Your task to perform on an android device: open app "Expedia: Hotels, Flights & Car" (install if not already installed) Image 0: 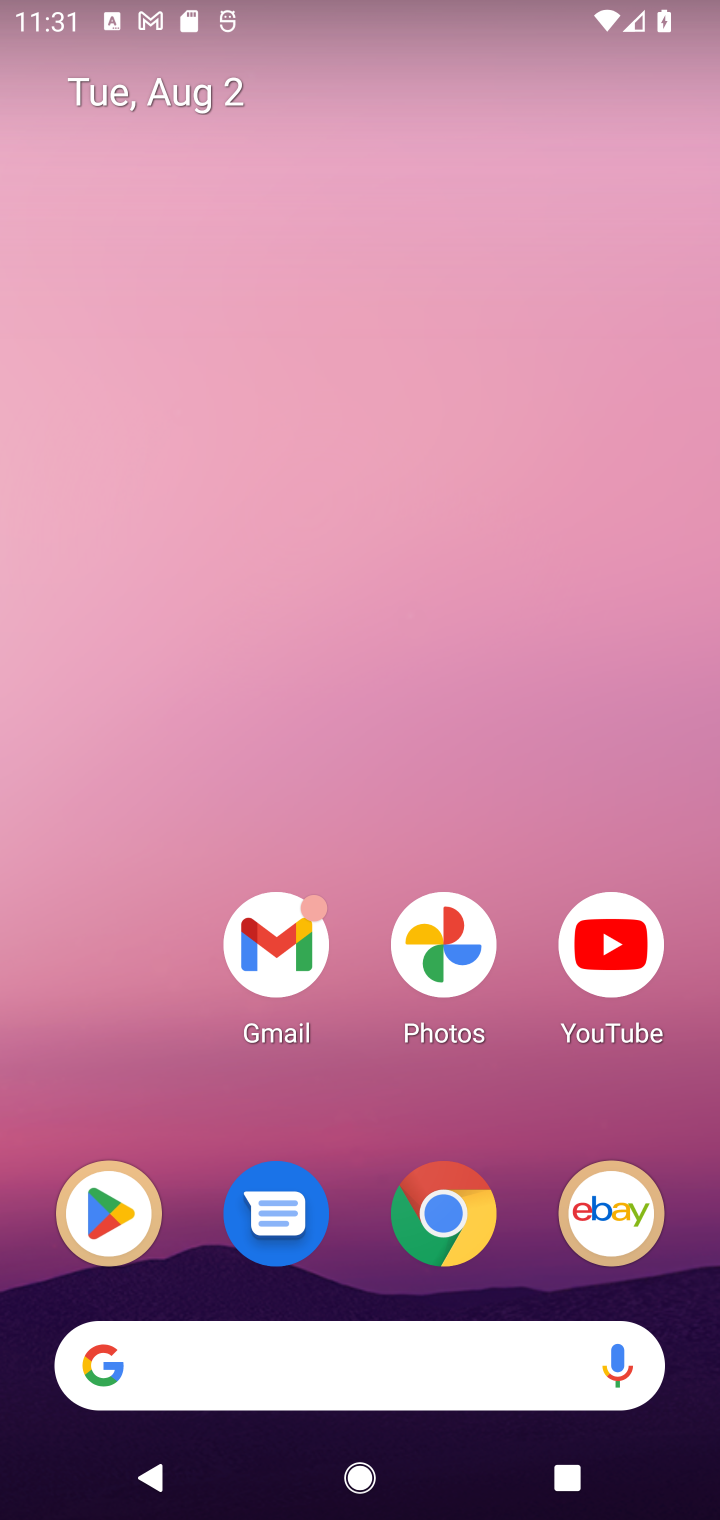
Step 0: click (93, 1235)
Your task to perform on an android device: open app "Expedia: Hotels, Flights & Car" (install if not already installed) Image 1: 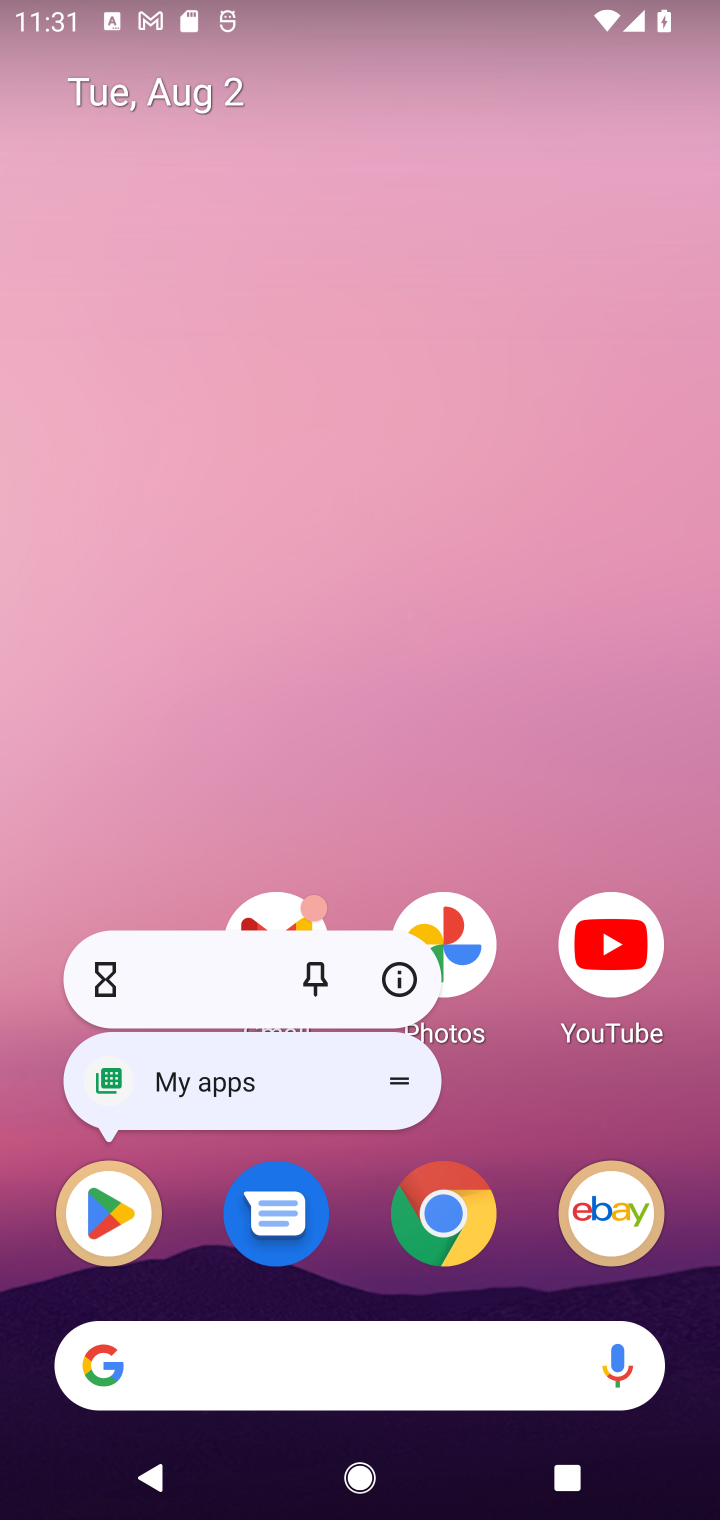
Step 1: click (95, 1246)
Your task to perform on an android device: open app "Expedia: Hotels, Flights & Car" (install if not already installed) Image 2: 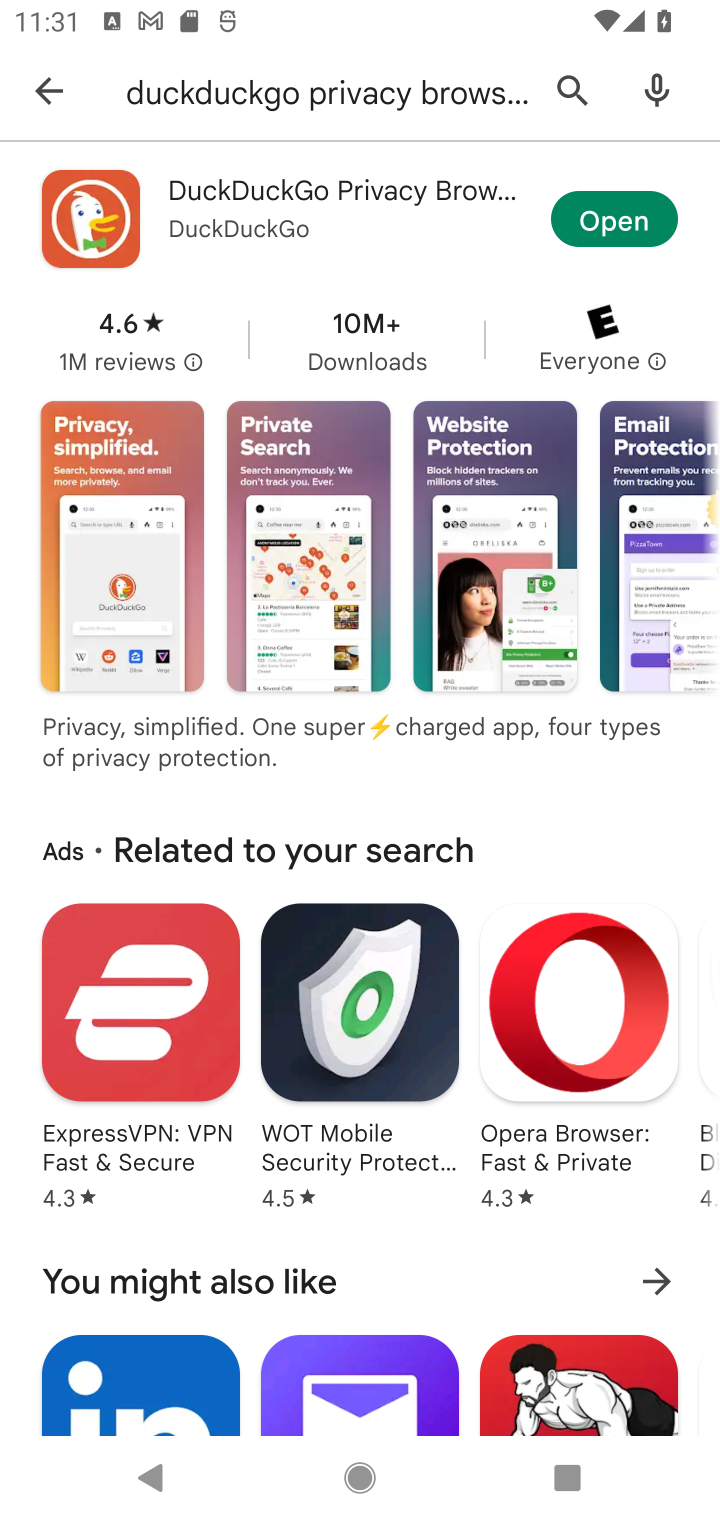
Step 2: click (49, 81)
Your task to perform on an android device: open app "Expedia: Hotels, Flights & Car" (install if not already installed) Image 3: 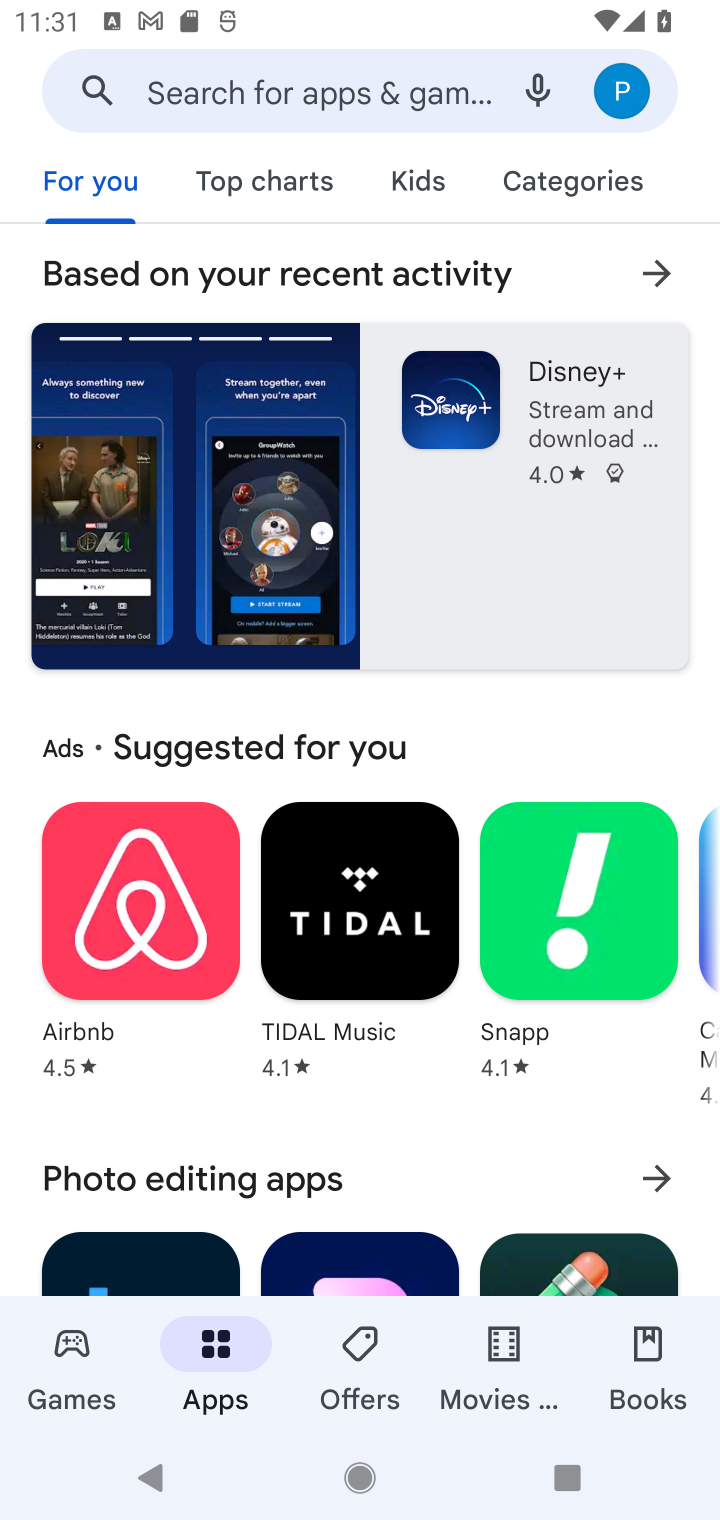
Step 3: click (301, 99)
Your task to perform on an android device: open app "Expedia: Hotels, Flights & Car" (install if not already installed) Image 4: 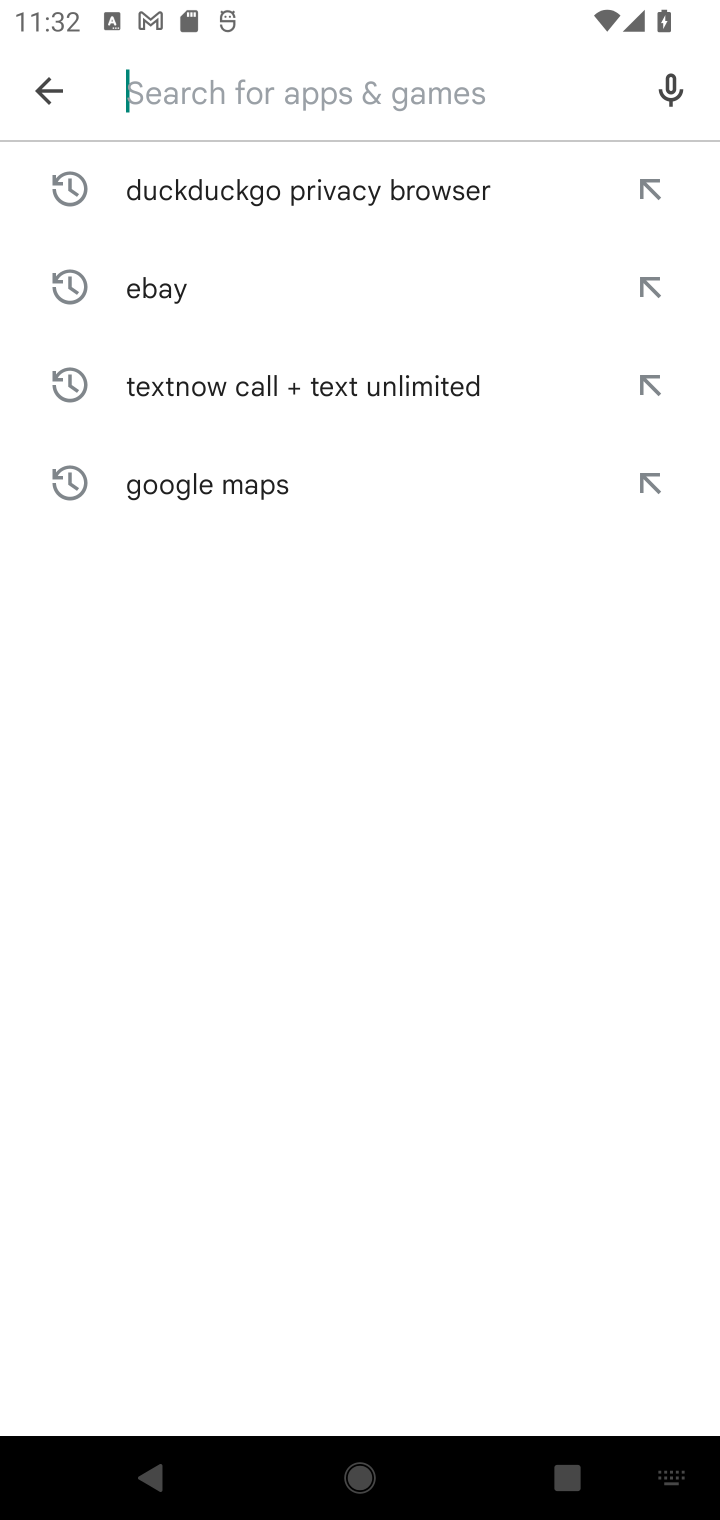
Step 4: type "Expedia: Hotels, Flights & Car"
Your task to perform on an android device: open app "Expedia: Hotels, Flights & Car" (install if not already installed) Image 5: 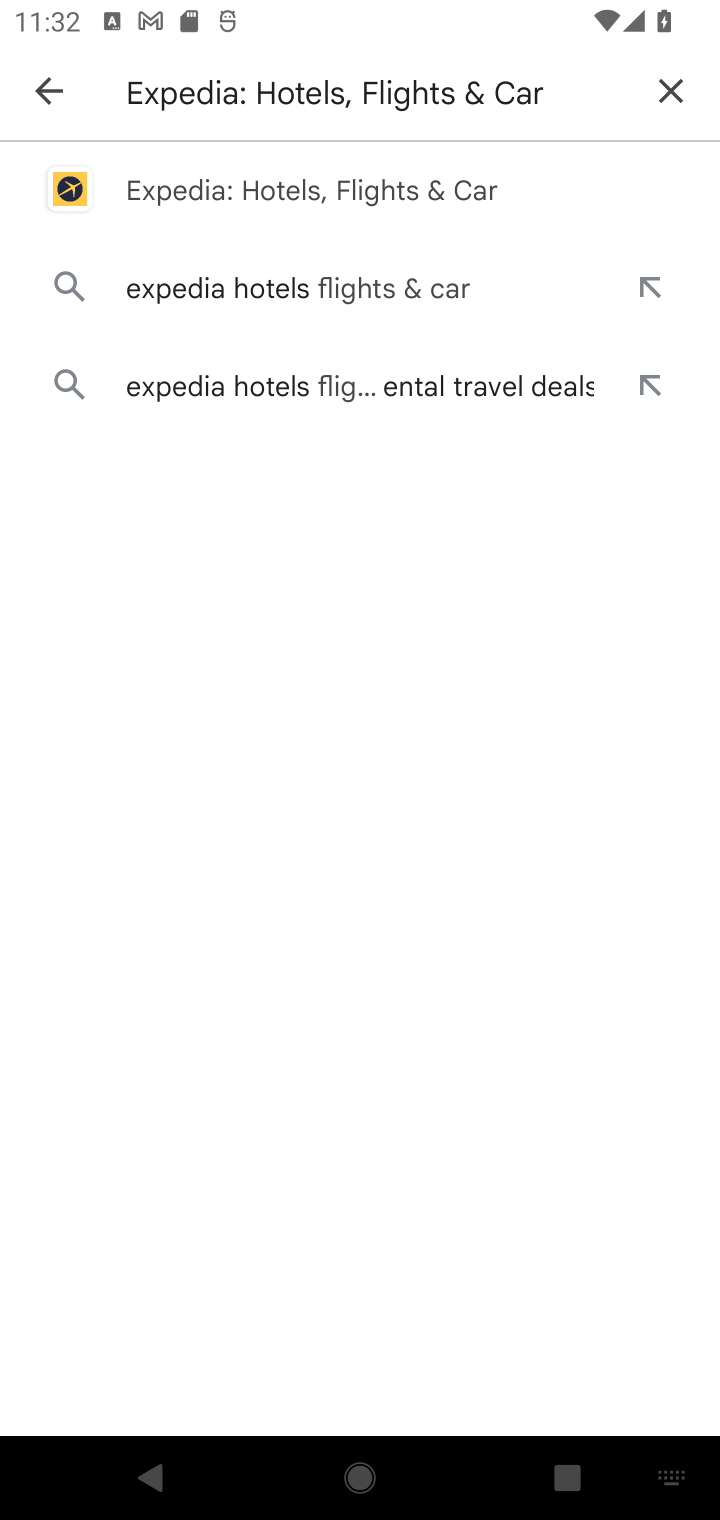
Step 5: click (399, 195)
Your task to perform on an android device: open app "Expedia: Hotels, Flights & Car" (install if not already installed) Image 6: 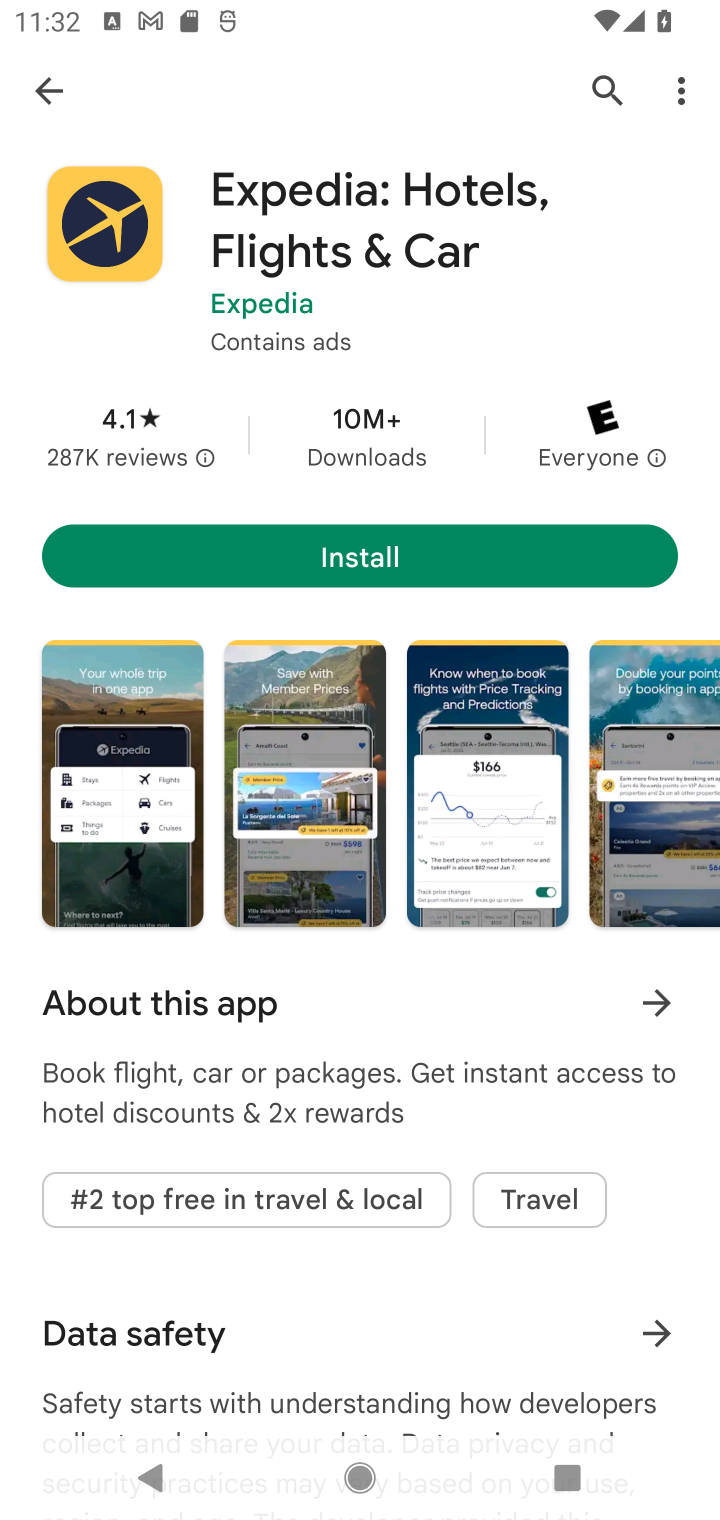
Step 6: click (356, 546)
Your task to perform on an android device: open app "Expedia: Hotels, Flights & Car" (install if not already installed) Image 7: 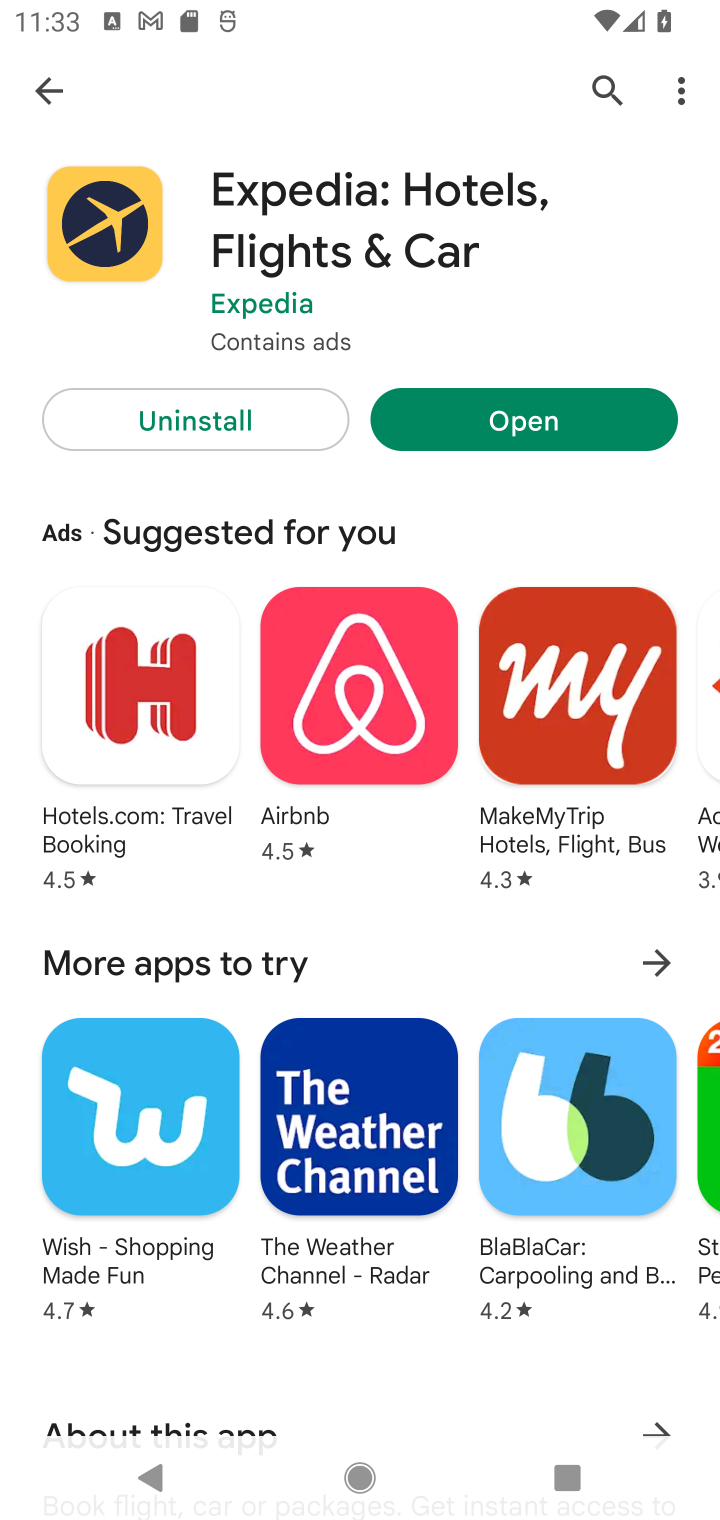
Step 7: click (519, 426)
Your task to perform on an android device: open app "Expedia: Hotels, Flights & Car" (install if not already installed) Image 8: 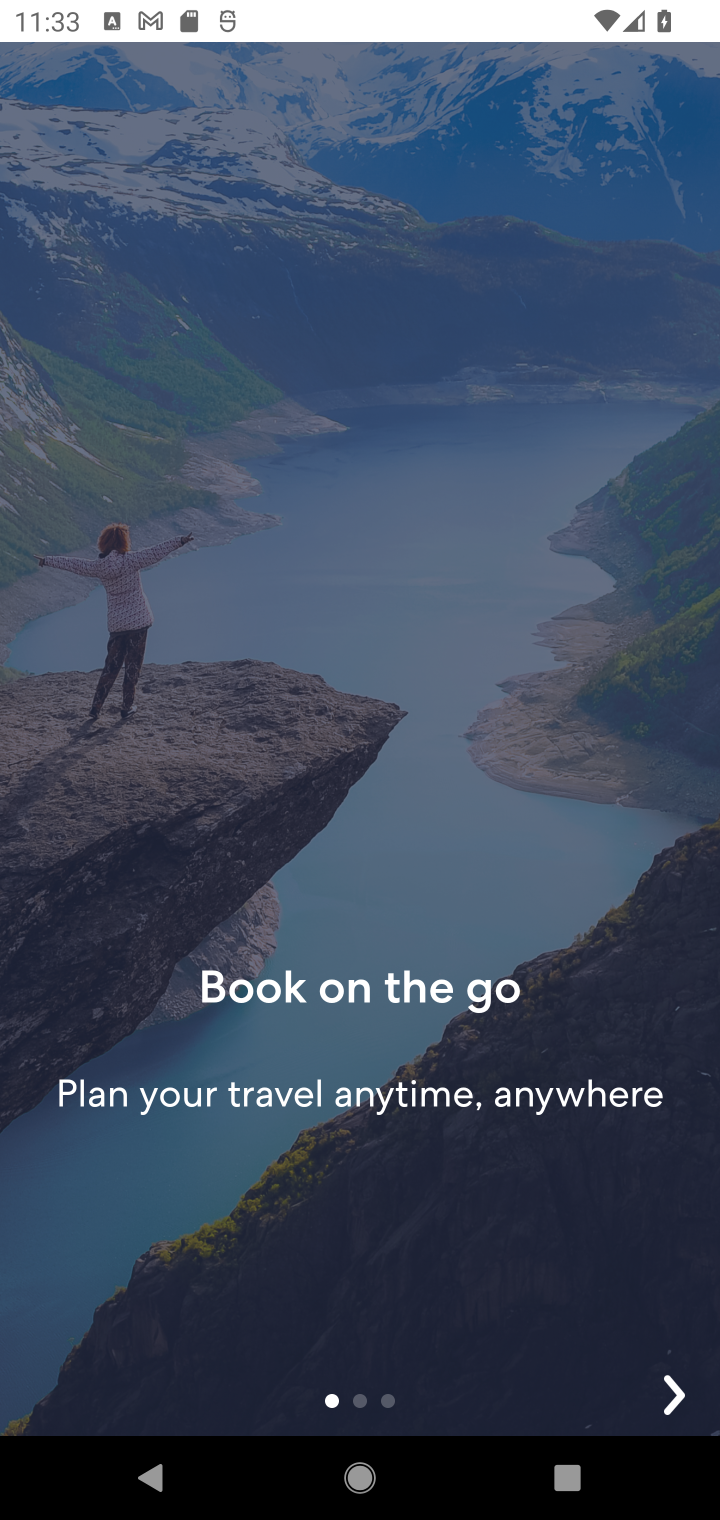
Step 8: task complete